Your task to perform on an android device: Open eBay Image 0: 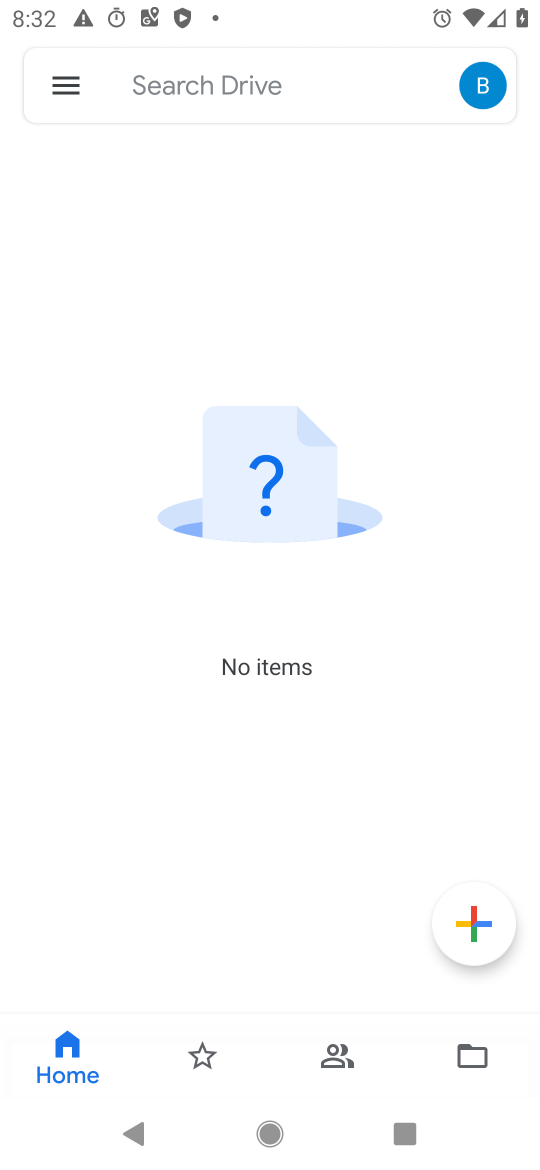
Step 0: press home button
Your task to perform on an android device: Open eBay Image 1: 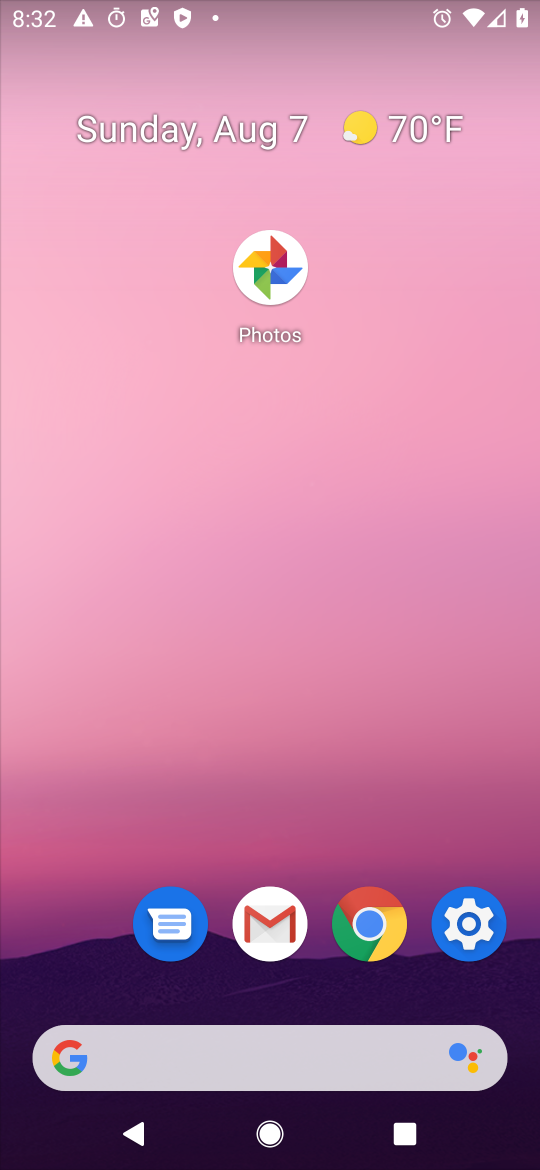
Step 1: drag from (373, 1099) to (384, 404)
Your task to perform on an android device: Open eBay Image 2: 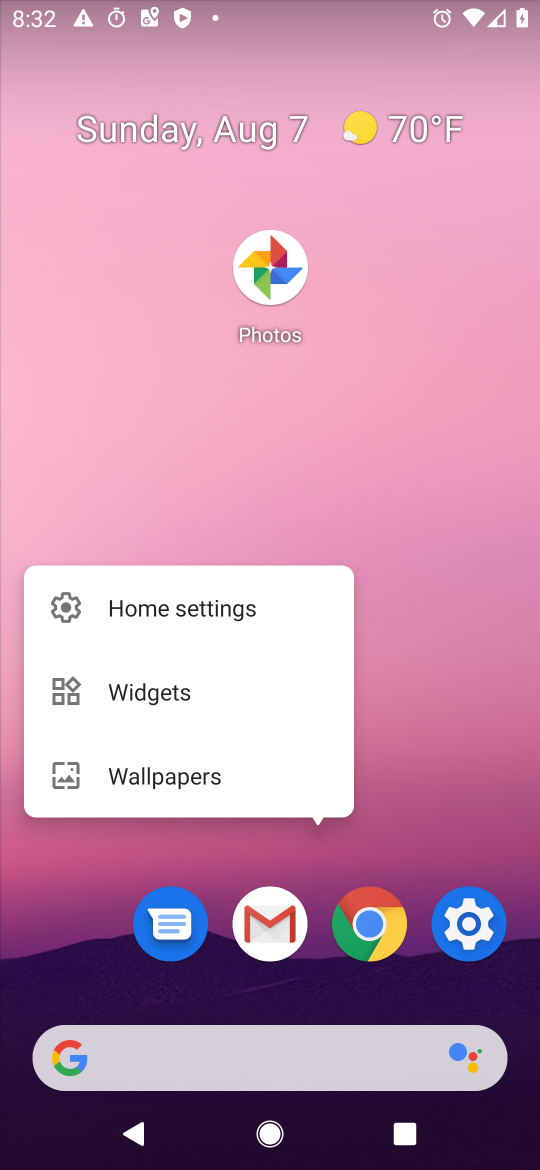
Step 2: click (384, 402)
Your task to perform on an android device: Open eBay Image 3: 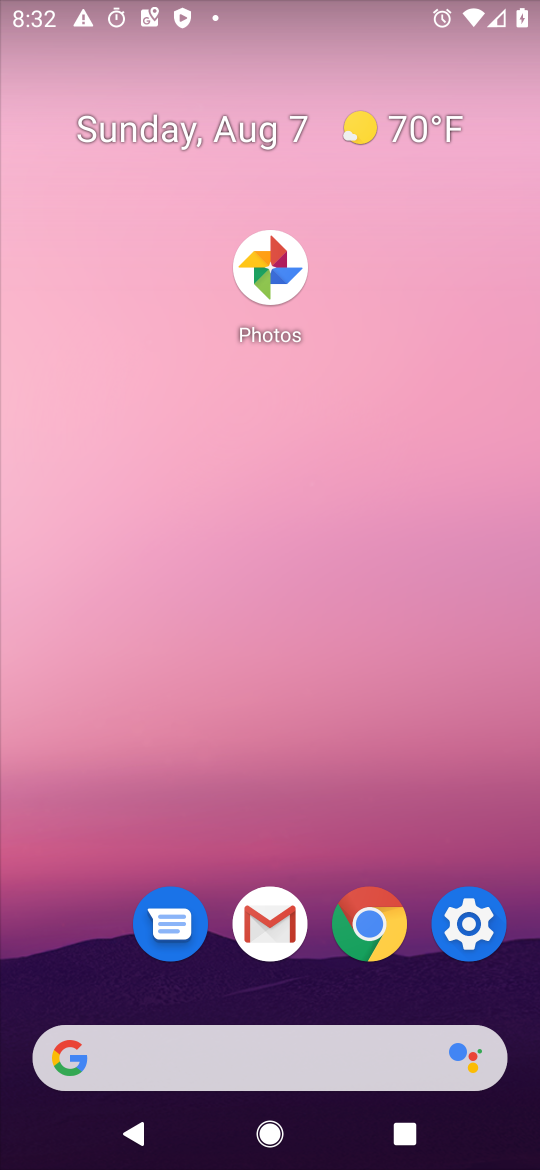
Step 3: click (361, 921)
Your task to perform on an android device: Open eBay Image 4: 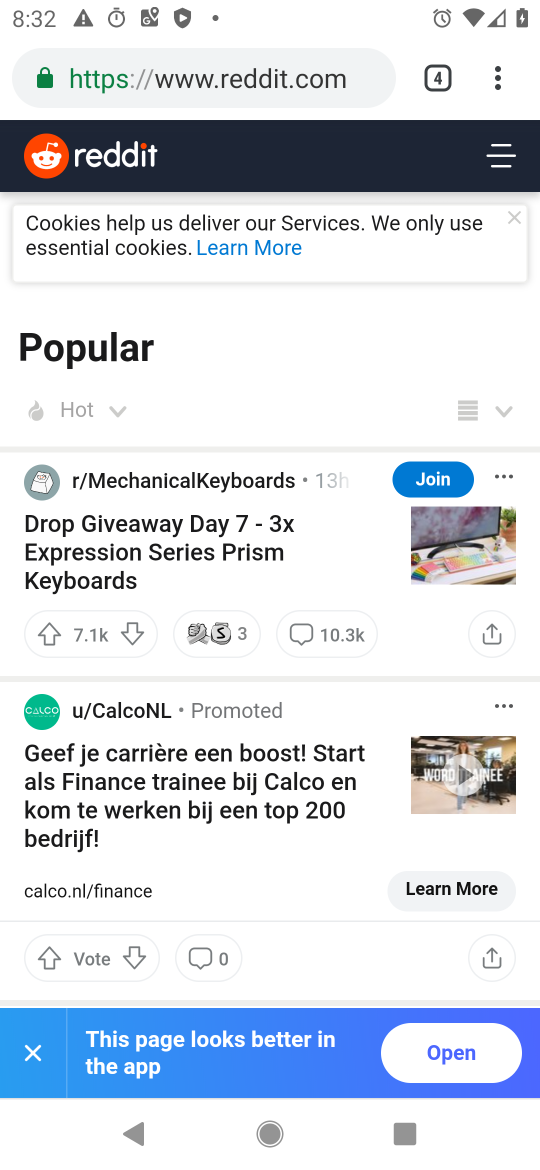
Step 4: click (311, 86)
Your task to perform on an android device: Open eBay Image 5: 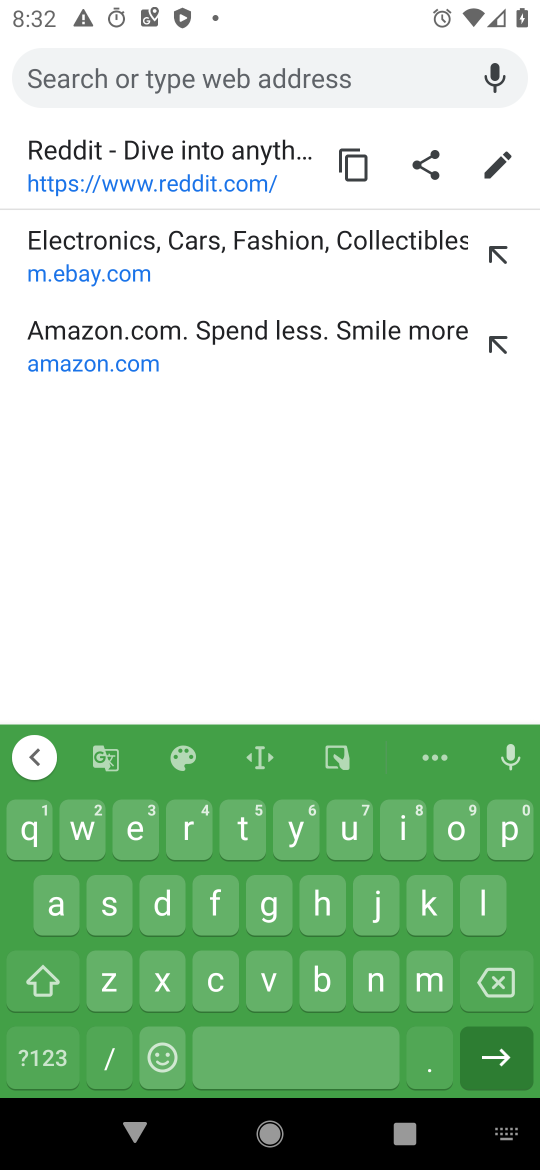
Step 5: click (126, 838)
Your task to perform on an android device: Open eBay Image 6: 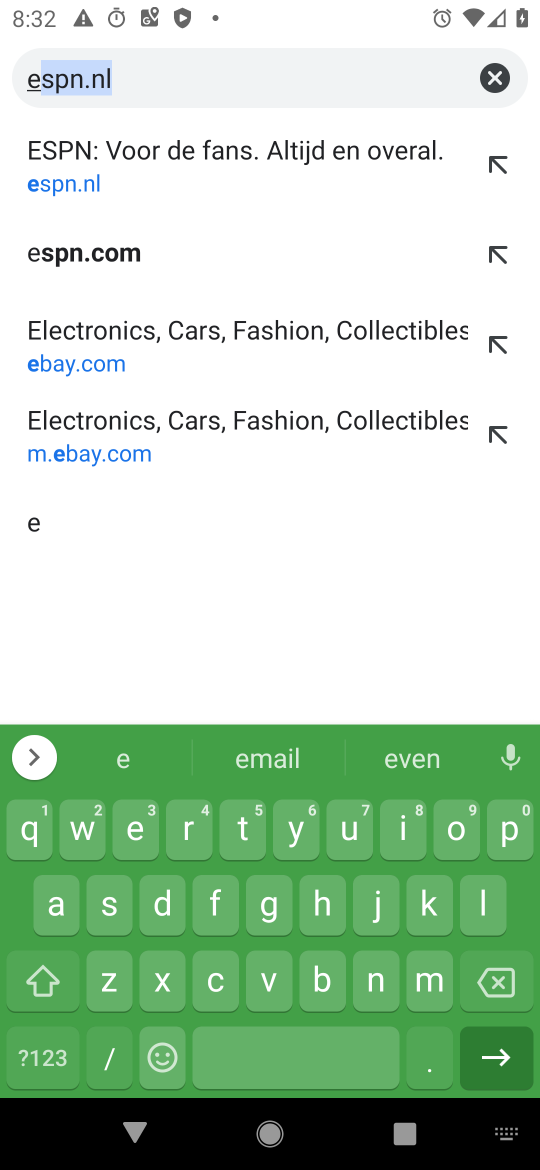
Step 6: click (303, 986)
Your task to perform on an android device: Open eBay Image 7: 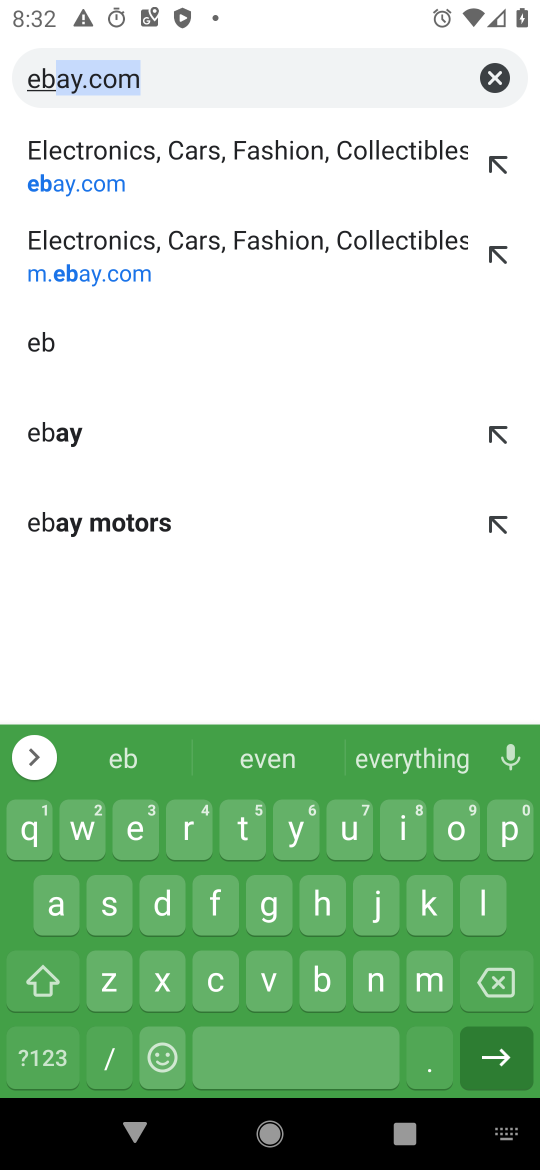
Step 7: click (230, 68)
Your task to perform on an android device: Open eBay Image 8: 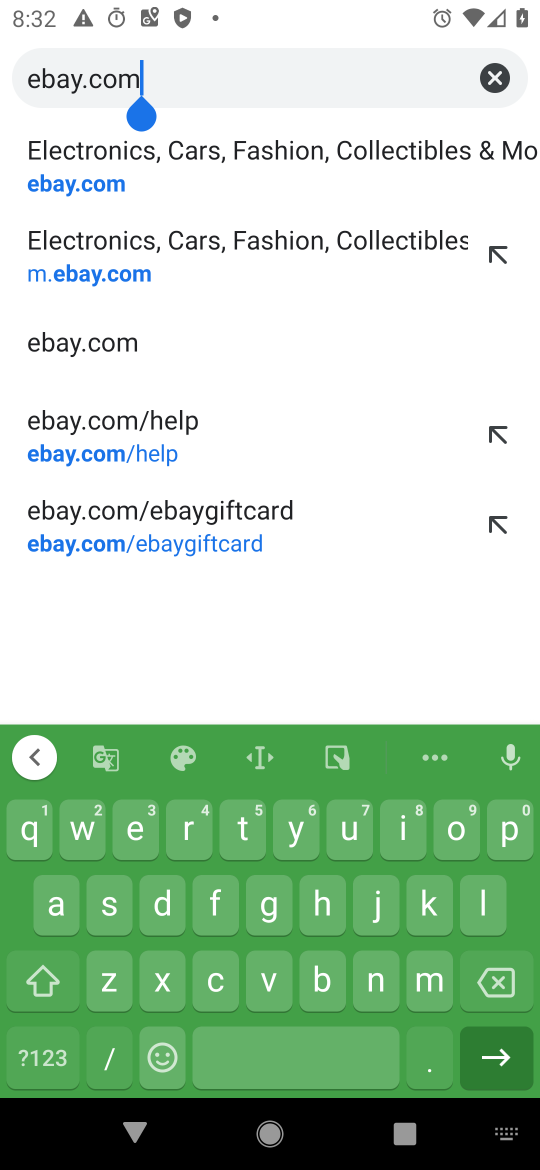
Step 8: click (508, 1060)
Your task to perform on an android device: Open eBay Image 9: 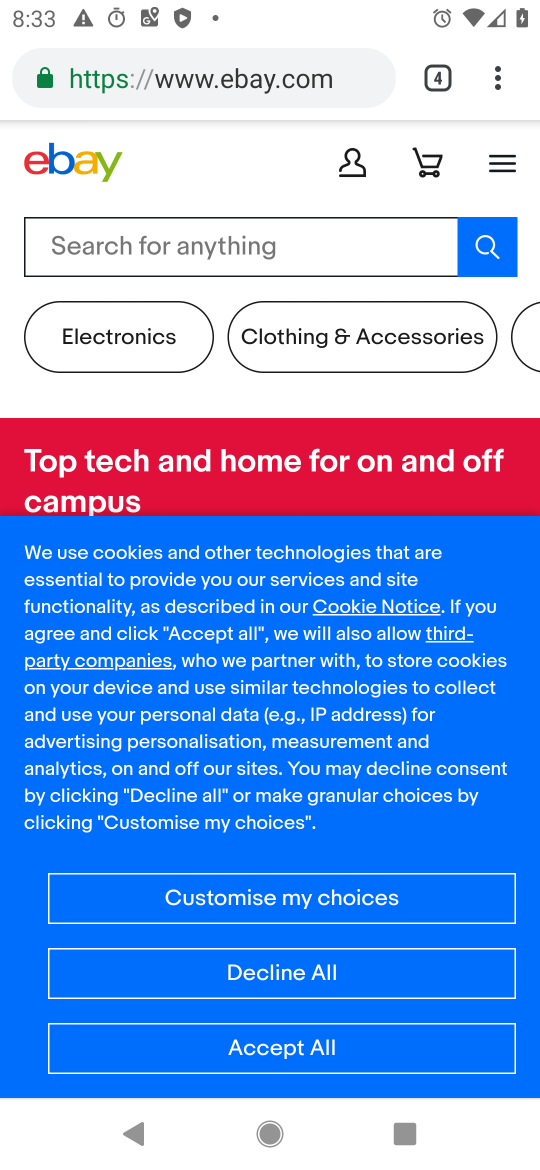
Step 9: task complete